Your task to perform on an android device: set an alarm Image 0: 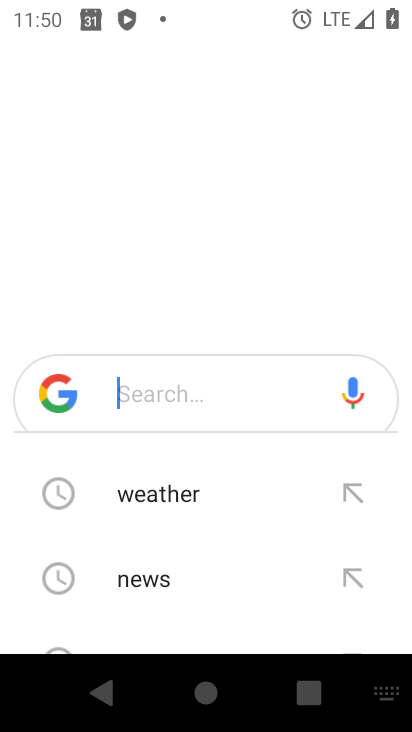
Step 0: press back button
Your task to perform on an android device: set an alarm Image 1: 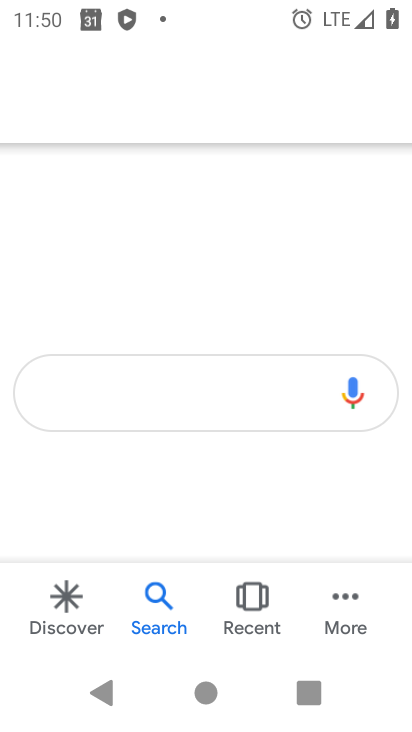
Step 1: press home button
Your task to perform on an android device: set an alarm Image 2: 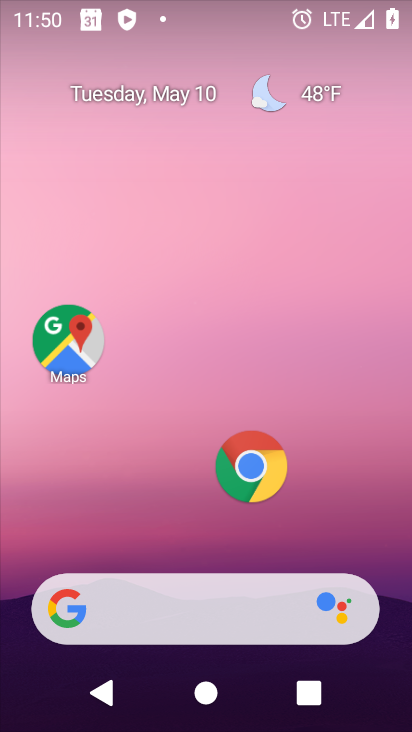
Step 2: drag from (150, 490) to (303, 0)
Your task to perform on an android device: set an alarm Image 3: 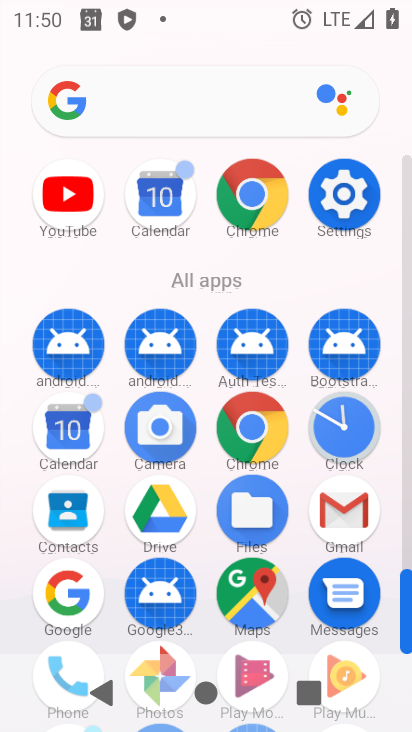
Step 3: click (345, 416)
Your task to perform on an android device: set an alarm Image 4: 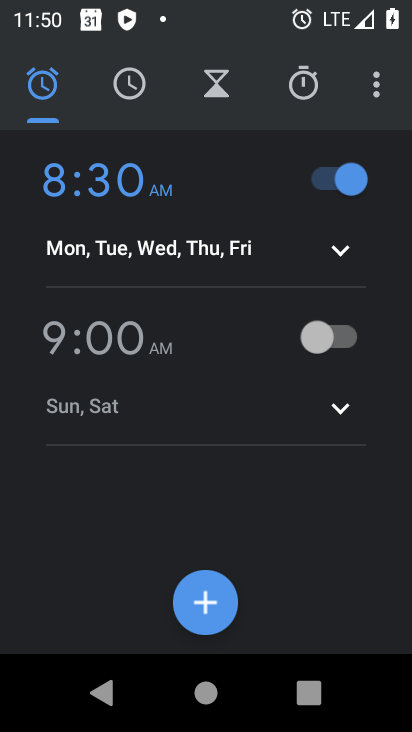
Step 4: click (321, 343)
Your task to perform on an android device: set an alarm Image 5: 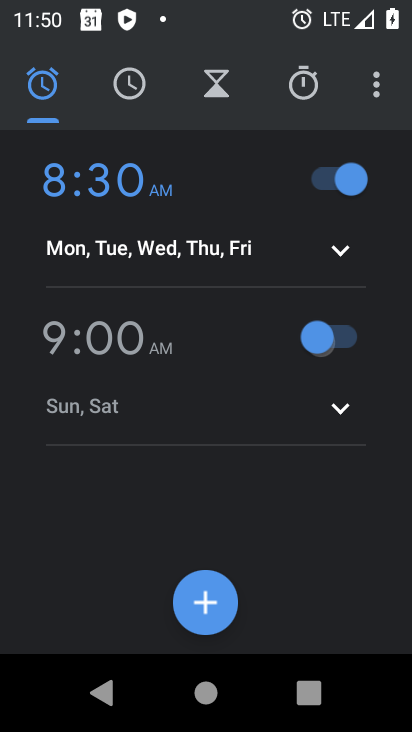
Step 5: task complete